Your task to perform on an android device: Open the stopwatch Image 0: 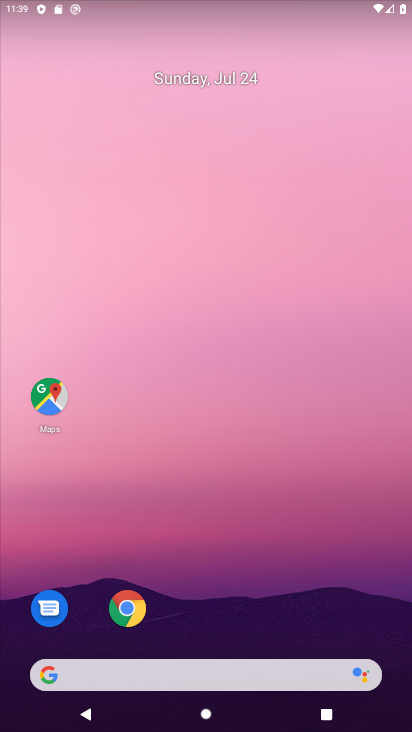
Step 0: drag from (206, 619) to (208, 177)
Your task to perform on an android device: Open the stopwatch Image 1: 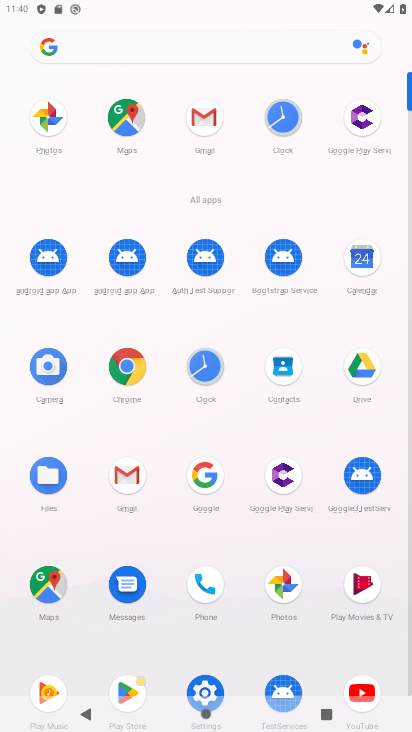
Step 1: click (268, 134)
Your task to perform on an android device: Open the stopwatch Image 2: 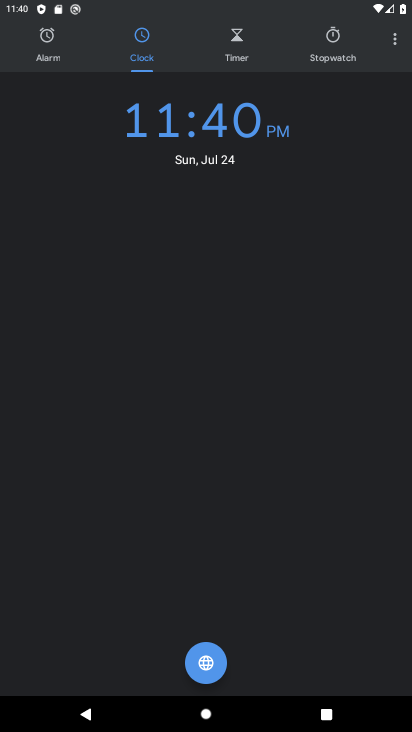
Step 2: click (341, 58)
Your task to perform on an android device: Open the stopwatch Image 3: 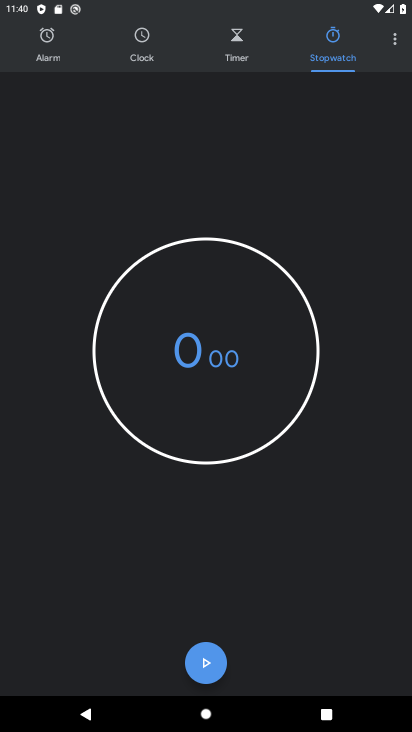
Step 3: task complete